Your task to perform on an android device: open a new tab in the chrome app Image 0: 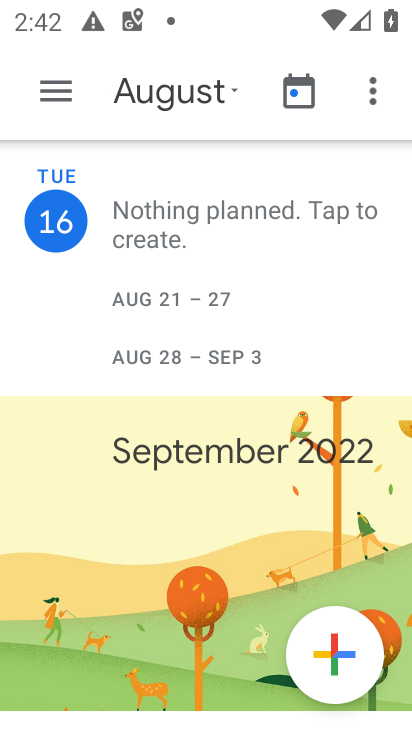
Step 0: press home button
Your task to perform on an android device: open a new tab in the chrome app Image 1: 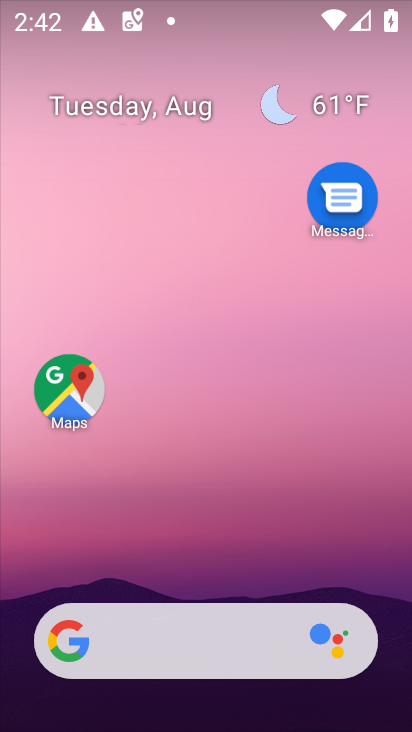
Step 1: drag from (231, 562) to (205, 119)
Your task to perform on an android device: open a new tab in the chrome app Image 2: 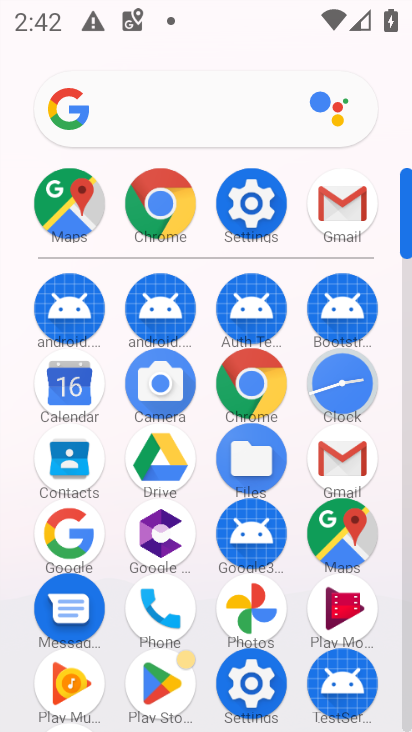
Step 2: click (167, 193)
Your task to perform on an android device: open a new tab in the chrome app Image 3: 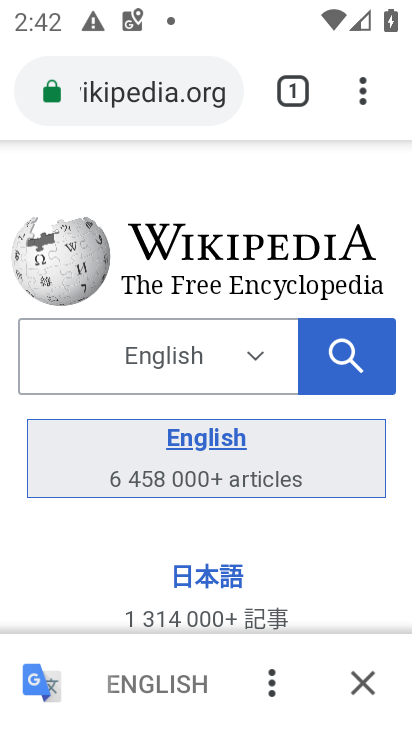
Step 3: click (380, 83)
Your task to perform on an android device: open a new tab in the chrome app Image 4: 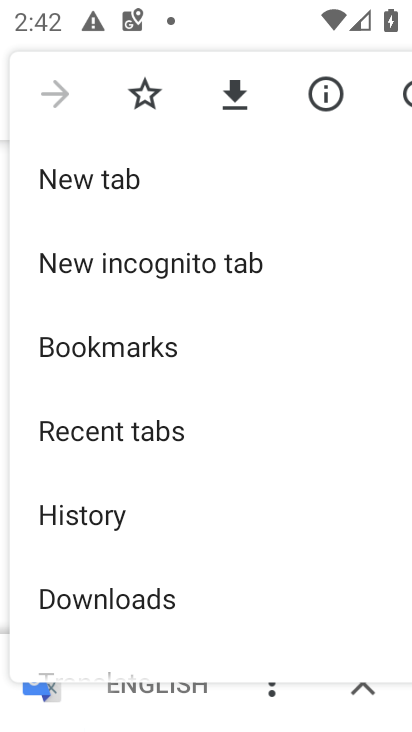
Step 4: click (132, 201)
Your task to perform on an android device: open a new tab in the chrome app Image 5: 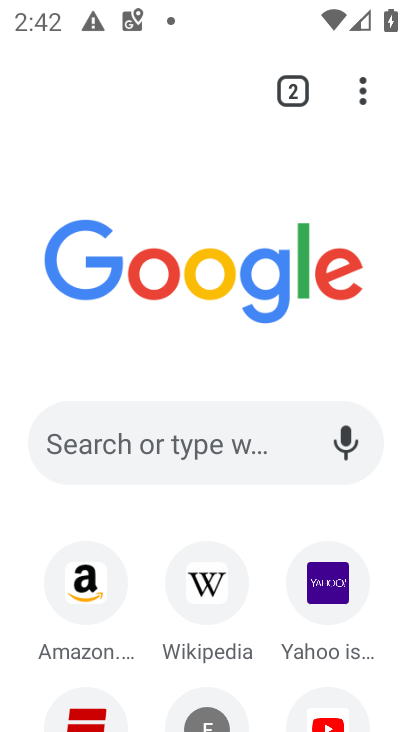
Step 5: task complete